Your task to perform on an android device: Open settings Image 0: 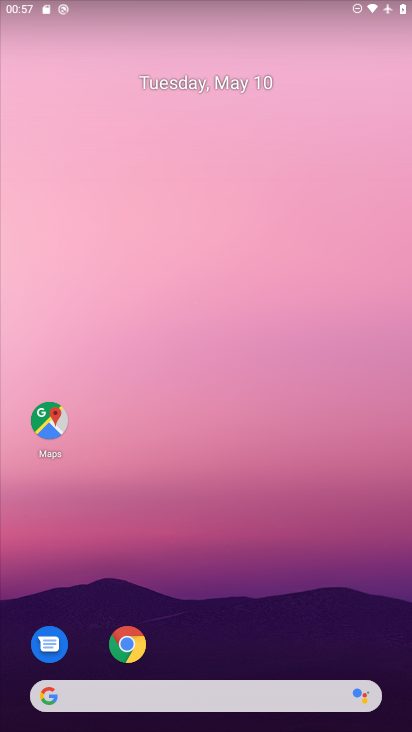
Step 0: drag from (224, 649) to (224, 276)
Your task to perform on an android device: Open settings Image 1: 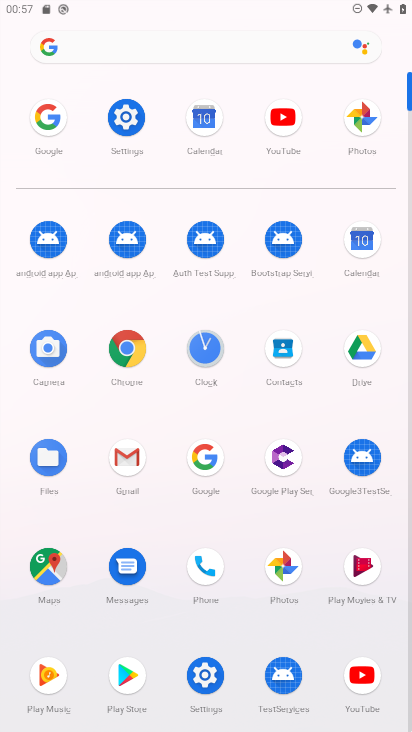
Step 1: click (133, 117)
Your task to perform on an android device: Open settings Image 2: 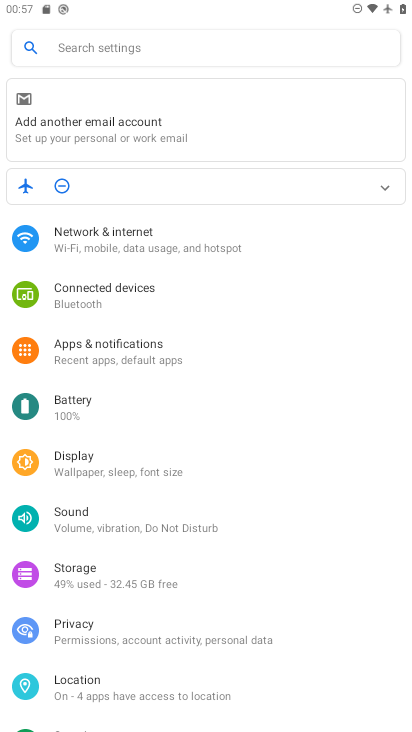
Step 2: task complete